Your task to perform on an android device: Open the Play Movies app and select the watchlist tab. Image 0: 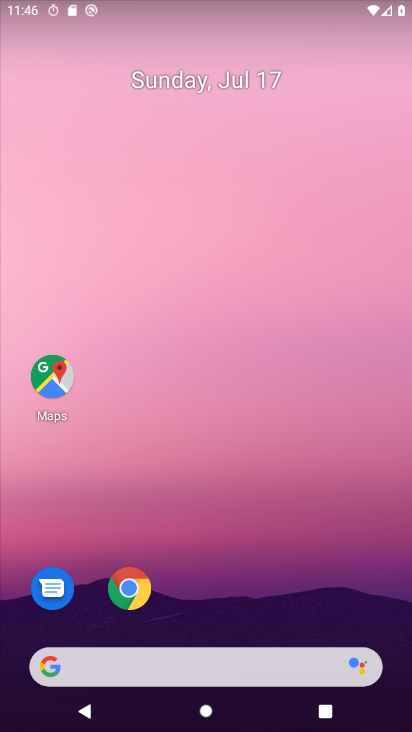
Step 0: drag from (281, 637) to (225, 294)
Your task to perform on an android device: Open the Play Movies app and select the watchlist tab. Image 1: 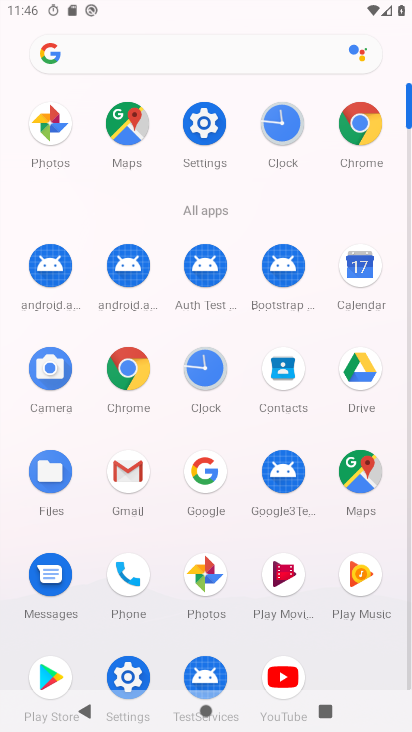
Step 1: click (293, 583)
Your task to perform on an android device: Open the Play Movies app and select the watchlist tab. Image 2: 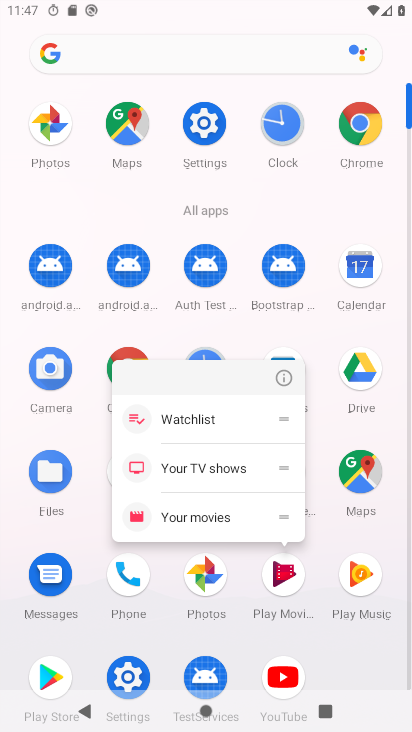
Step 2: click (300, 611)
Your task to perform on an android device: Open the Play Movies app and select the watchlist tab. Image 3: 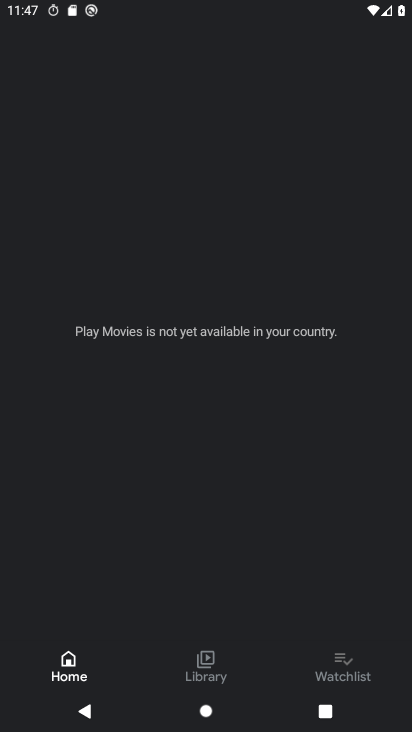
Step 3: click (326, 650)
Your task to perform on an android device: Open the Play Movies app and select the watchlist tab. Image 4: 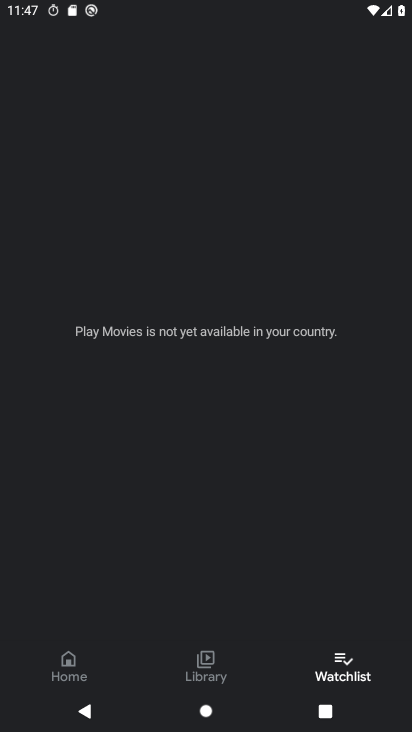
Step 4: task complete